Your task to perform on an android device: Open Chrome and go to the settings page Image 0: 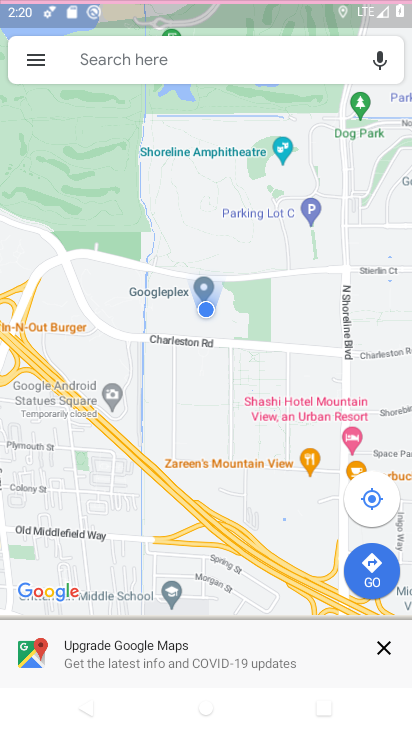
Step 0: click (393, 11)
Your task to perform on an android device: Open Chrome and go to the settings page Image 1: 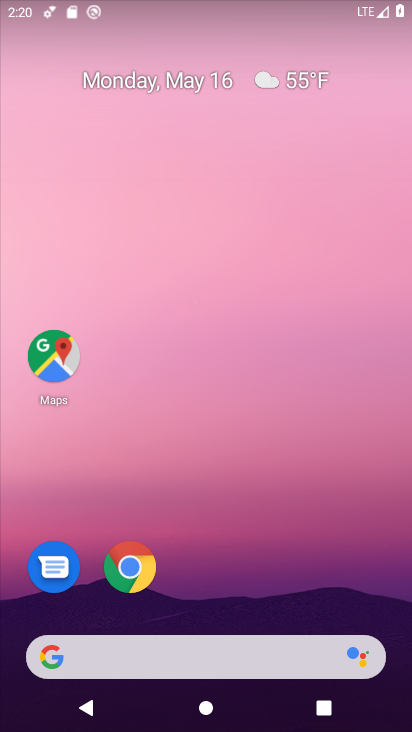
Step 1: click (149, 575)
Your task to perform on an android device: Open Chrome and go to the settings page Image 2: 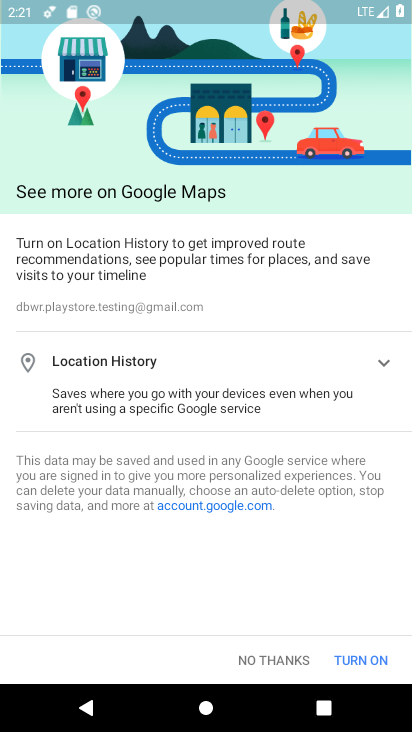
Step 2: click (295, 663)
Your task to perform on an android device: Open Chrome and go to the settings page Image 3: 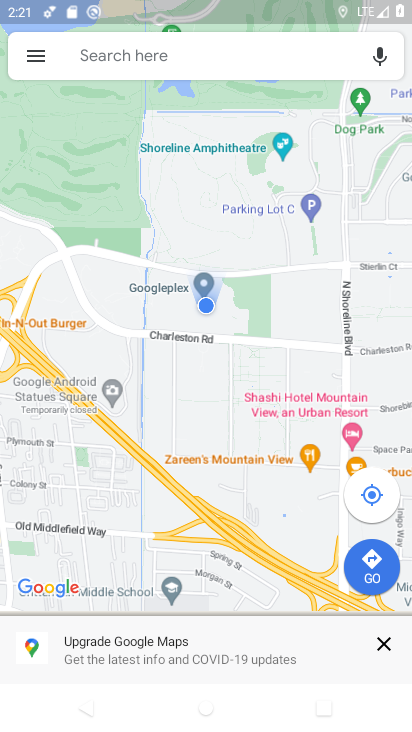
Step 3: press home button
Your task to perform on an android device: Open Chrome and go to the settings page Image 4: 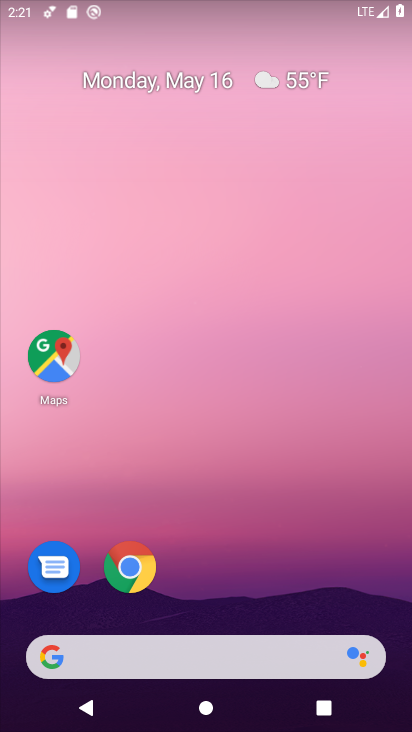
Step 4: click (143, 563)
Your task to perform on an android device: Open Chrome and go to the settings page Image 5: 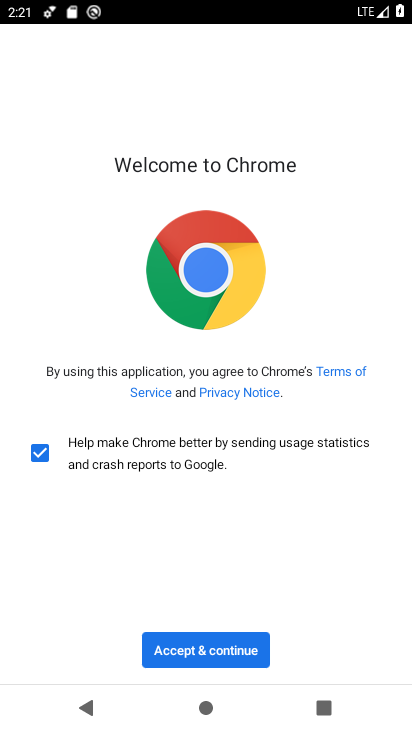
Step 5: click (243, 661)
Your task to perform on an android device: Open Chrome and go to the settings page Image 6: 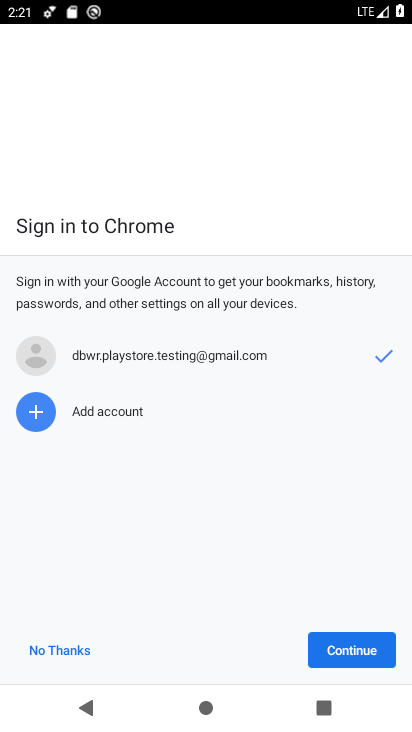
Step 6: click (378, 643)
Your task to perform on an android device: Open Chrome and go to the settings page Image 7: 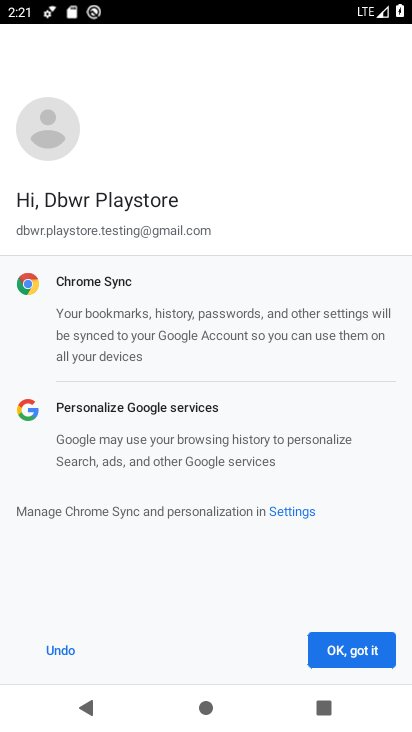
Step 7: click (379, 642)
Your task to perform on an android device: Open Chrome and go to the settings page Image 8: 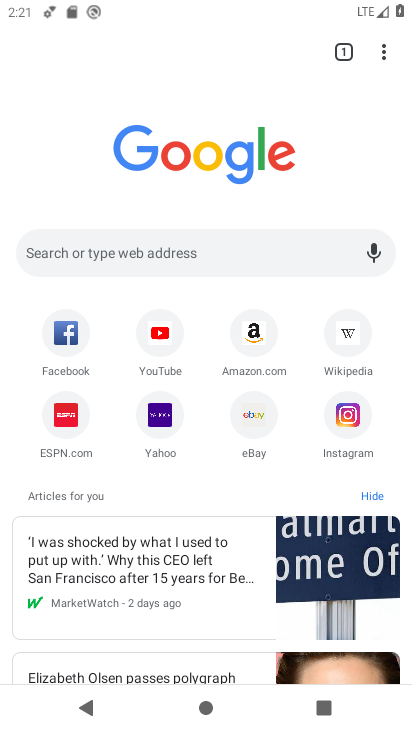
Step 8: click (384, 47)
Your task to perform on an android device: Open Chrome and go to the settings page Image 9: 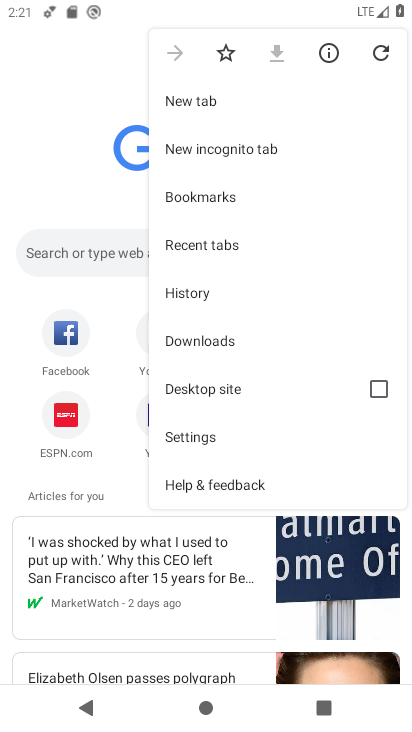
Step 9: click (235, 438)
Your task to perform on an android device: Open Chrome and go to the settings page Image 10: 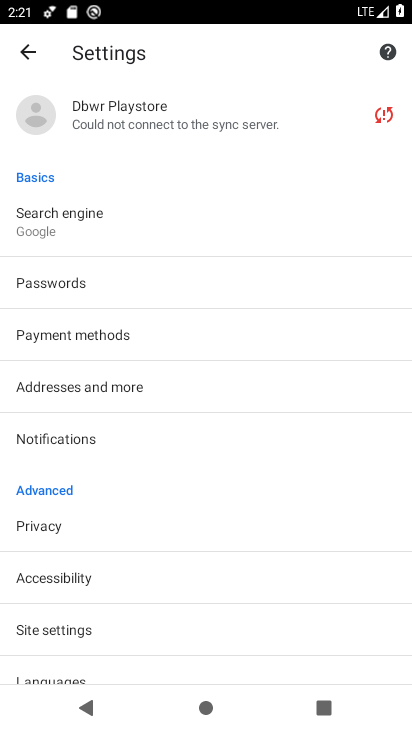
Step 10: task complete